Your task to perform on an android device: Show the shopping cart on costco.com. Search for dell alienware on costco.com, select the first entry, and add it to the cart. Image 0: 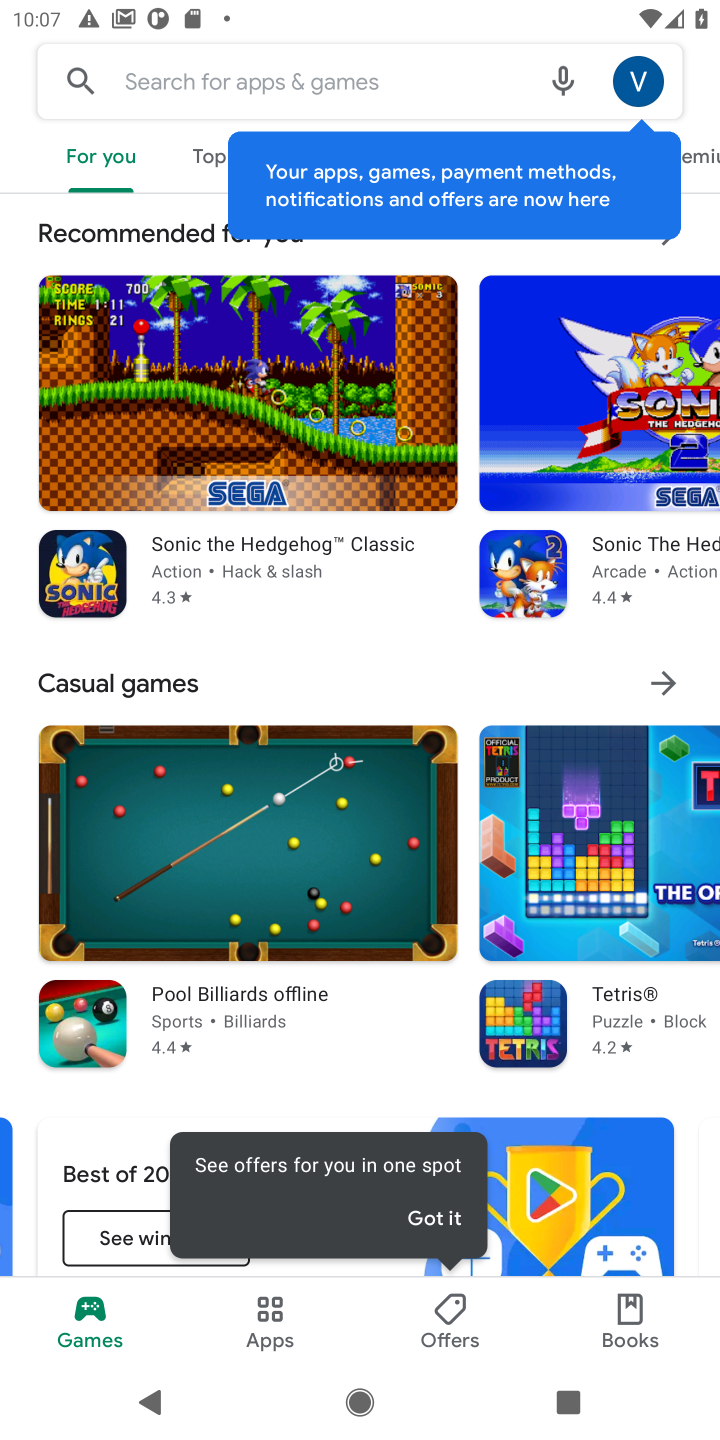
Step 0: press home button
Your task to perform on an android device: Show the shopping cart on costco.com. Search for dell alienware on costco.com, select the first entry, and add it to the cart. Image 1: 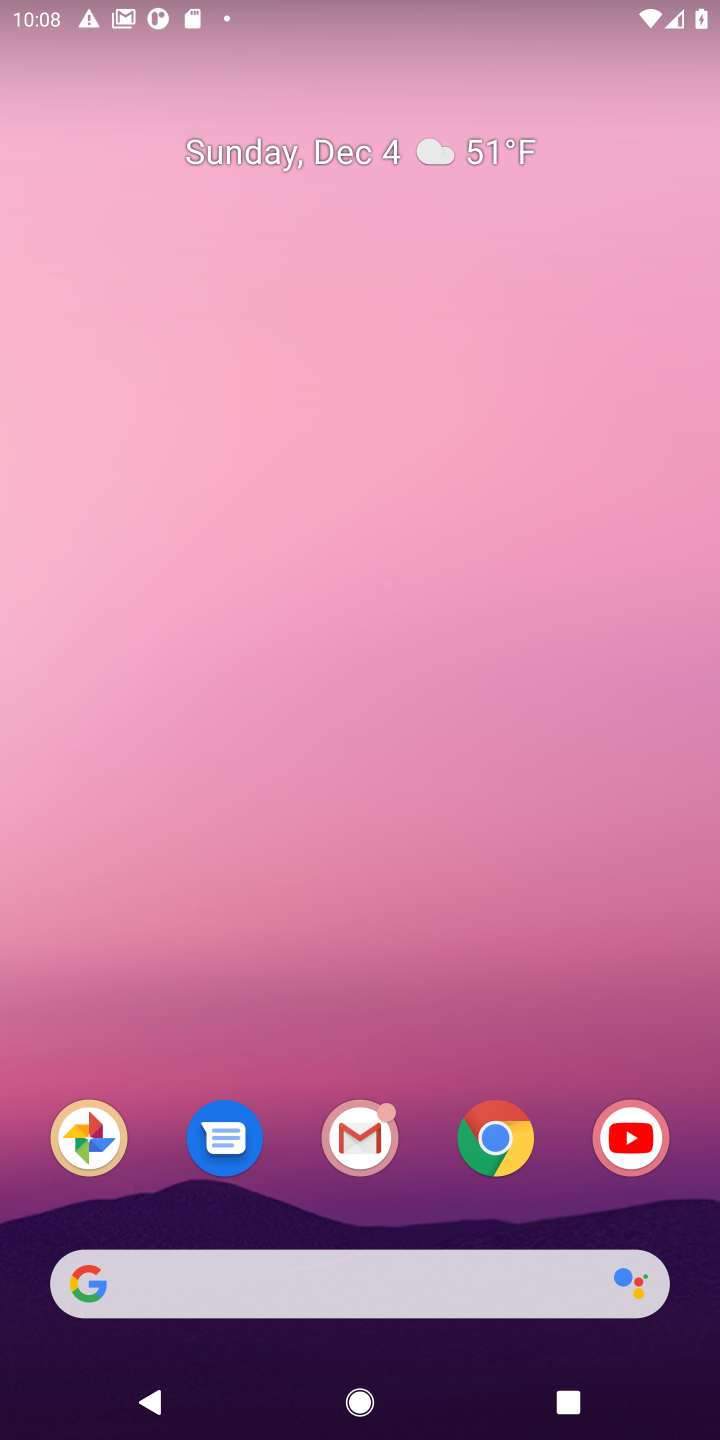
Step 1: click (492, 1135)
Your task to perform on an android device: Show the shopping cart on costco.com. Search for dell alienware on costco.com, select the first entry, and add it to the cart. Image 2: 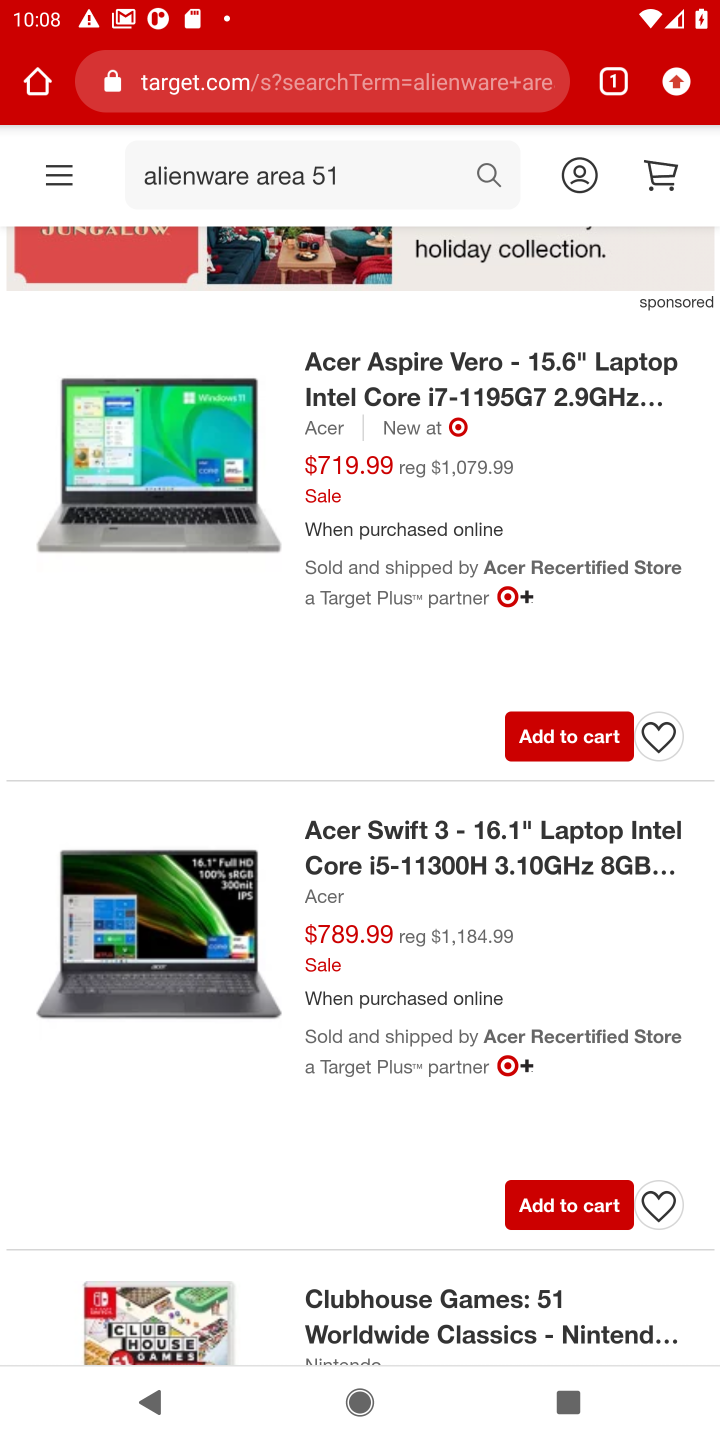
Step 2: click (339, 86)
Your task to perform on an android device: Show the shopping cart on costco.com. Search for dell alienware on costco.com, select the first entry, and add it to the cart. Image 3: 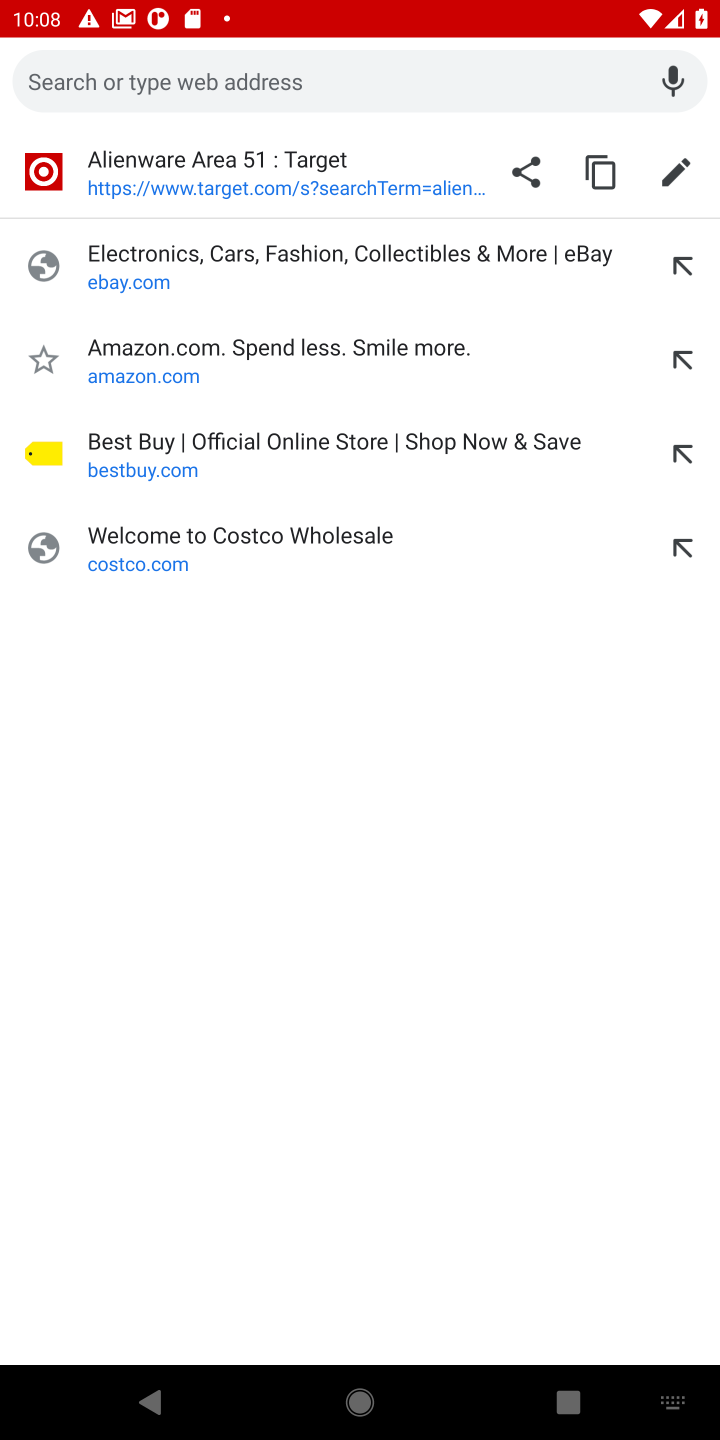
Step 3: click (169, 532)
Your task to perform on an android device: Show the shopping cart on costco.com. Search for dell alienware on costco.com, select the first entry, and add it to the cart. Image 4: 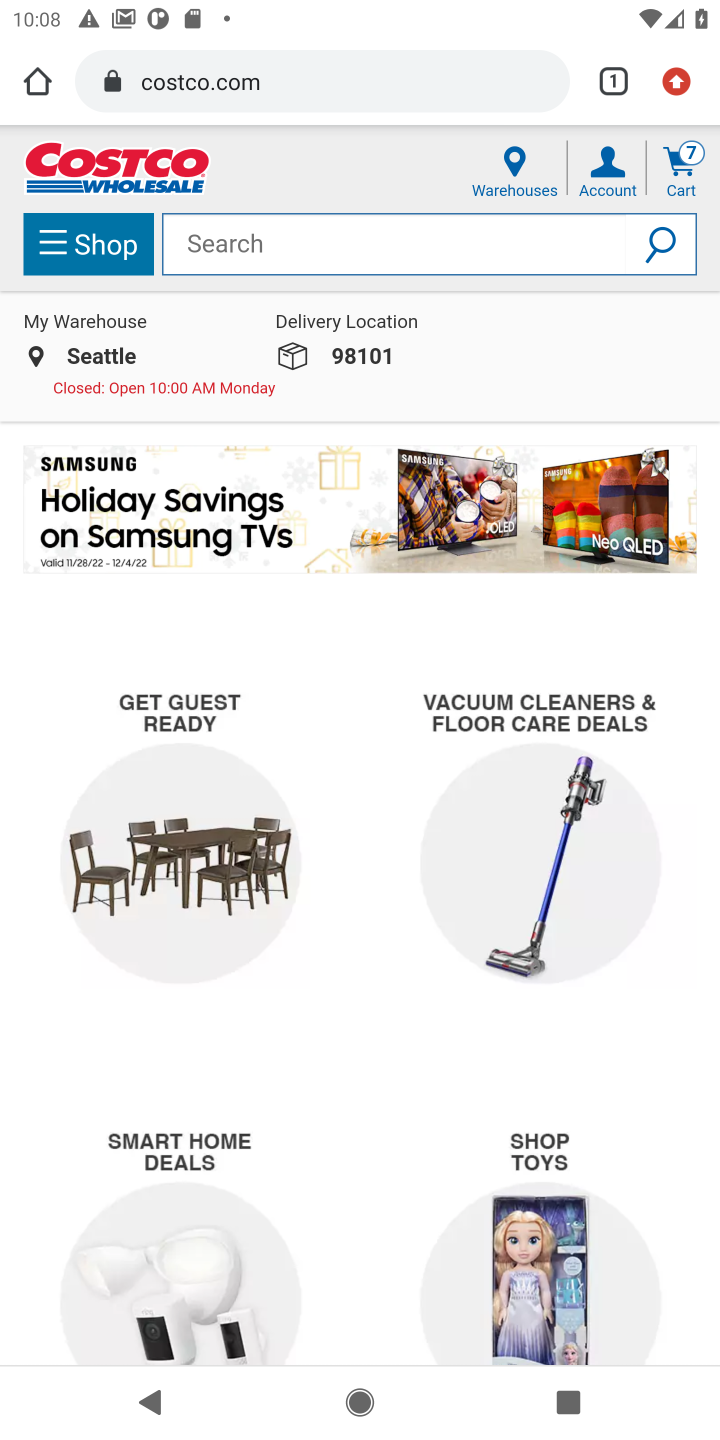
Step 4: click (688, 183)
Your task to perform on an android device: Show the shopping cart on costco.com. Search for dell alienware on costco.com, select the first entry, and add it to the cart. Image 5: 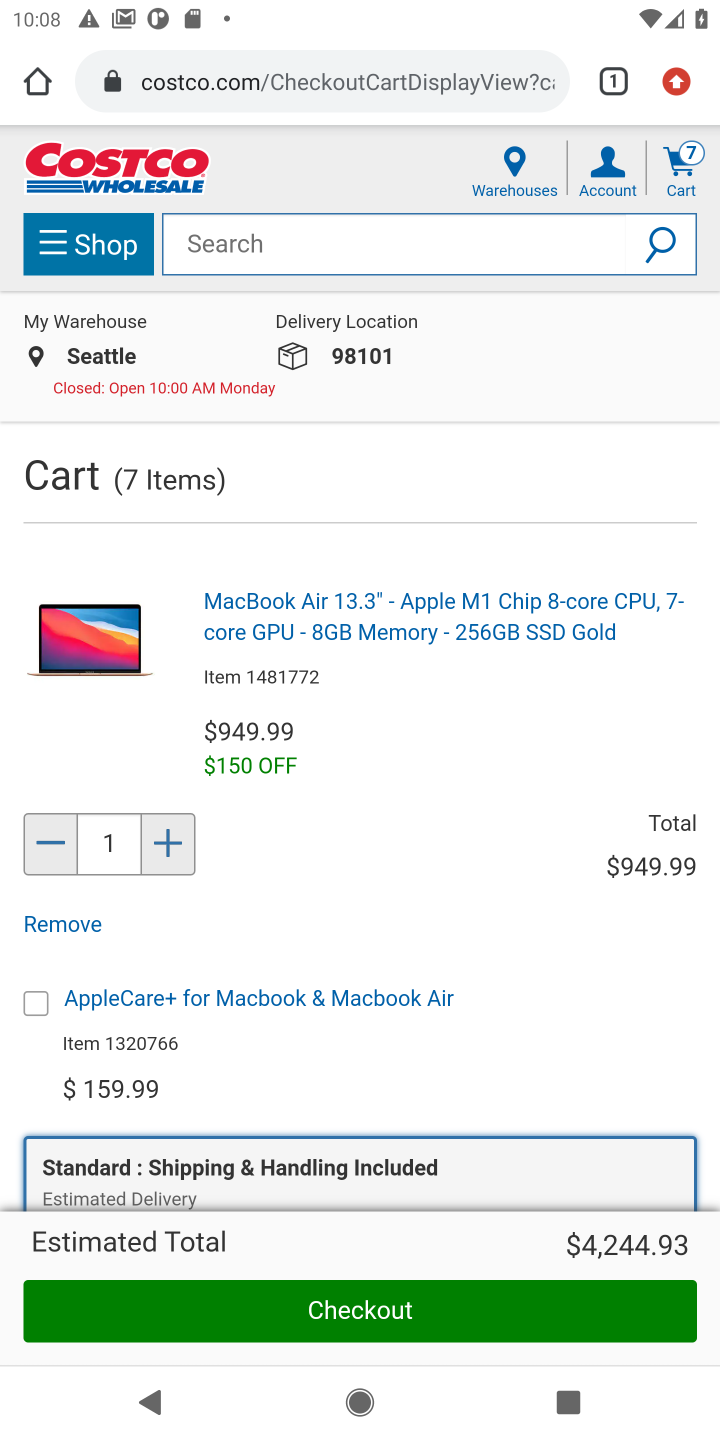
Step 5: click (606, 243)
Your task to perform on an android device: Show the shopping cart on costco.com. Search for dell alienware on costco.com, select the first entry, and add it to the cart. Image 6: 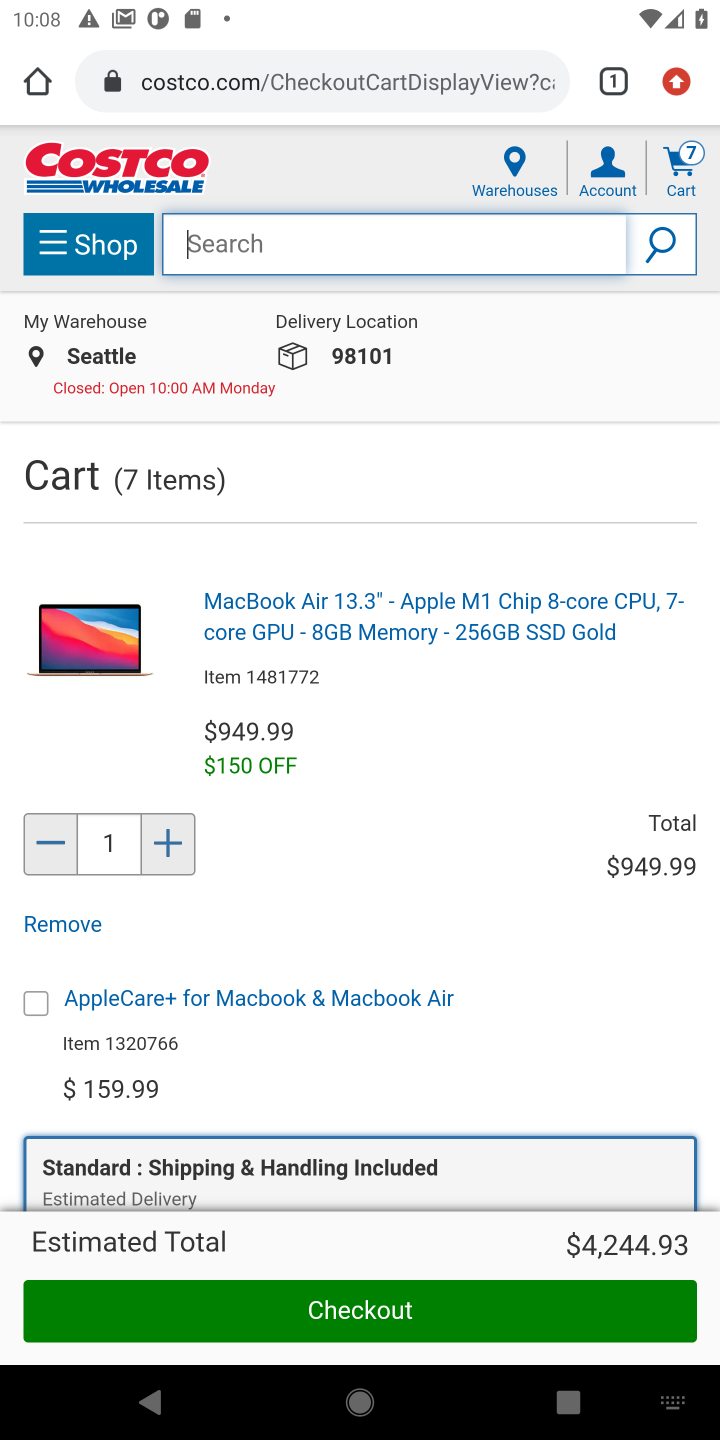
Step 6: press enter
Your task to perform on an android device: Show the shopping cart on costco.com. Search for dell alienware on costco.com, select the first entry, and add it to the cart. Image 7: 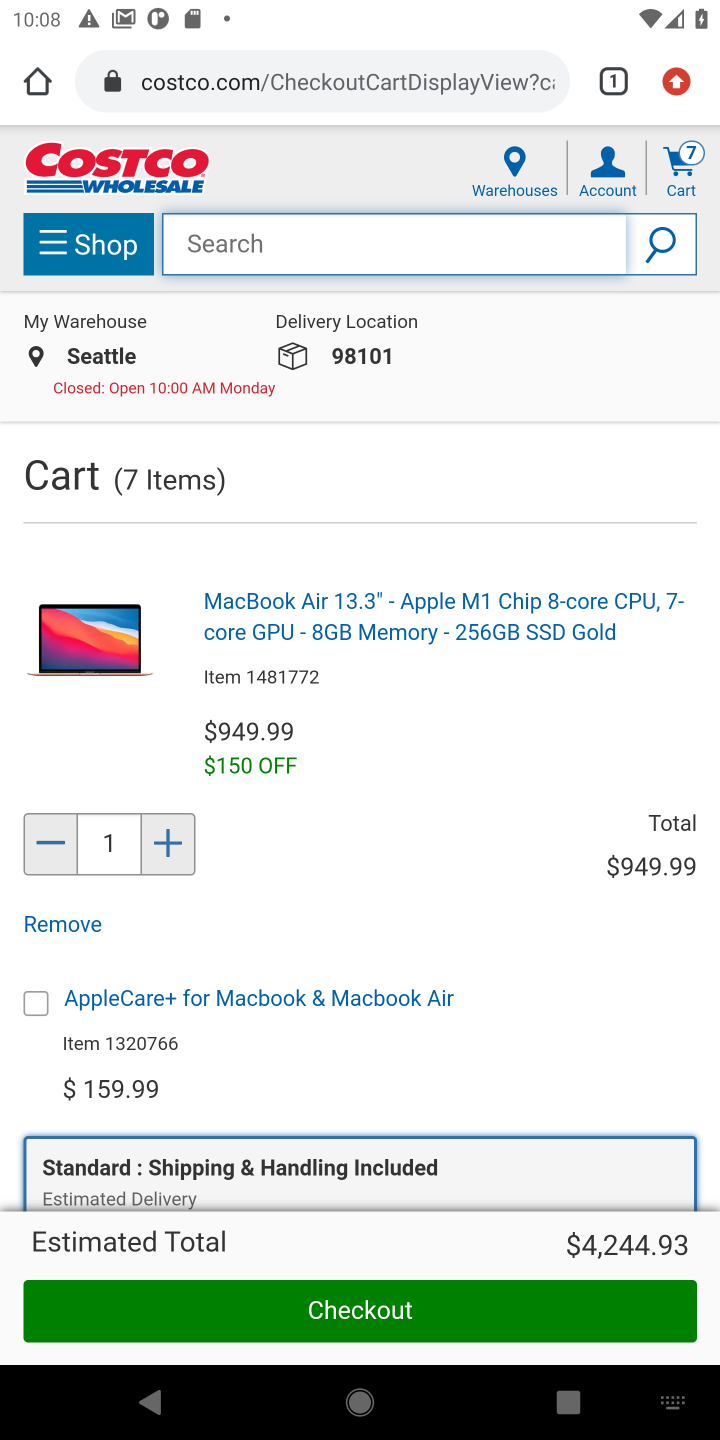
Step 7: type "dell alienware "
Your task to perform on an android device: Show the shopping cart on costco.com. Search for dell alienware on costco.com, select the first entry, and add it to the cart. Image 8: 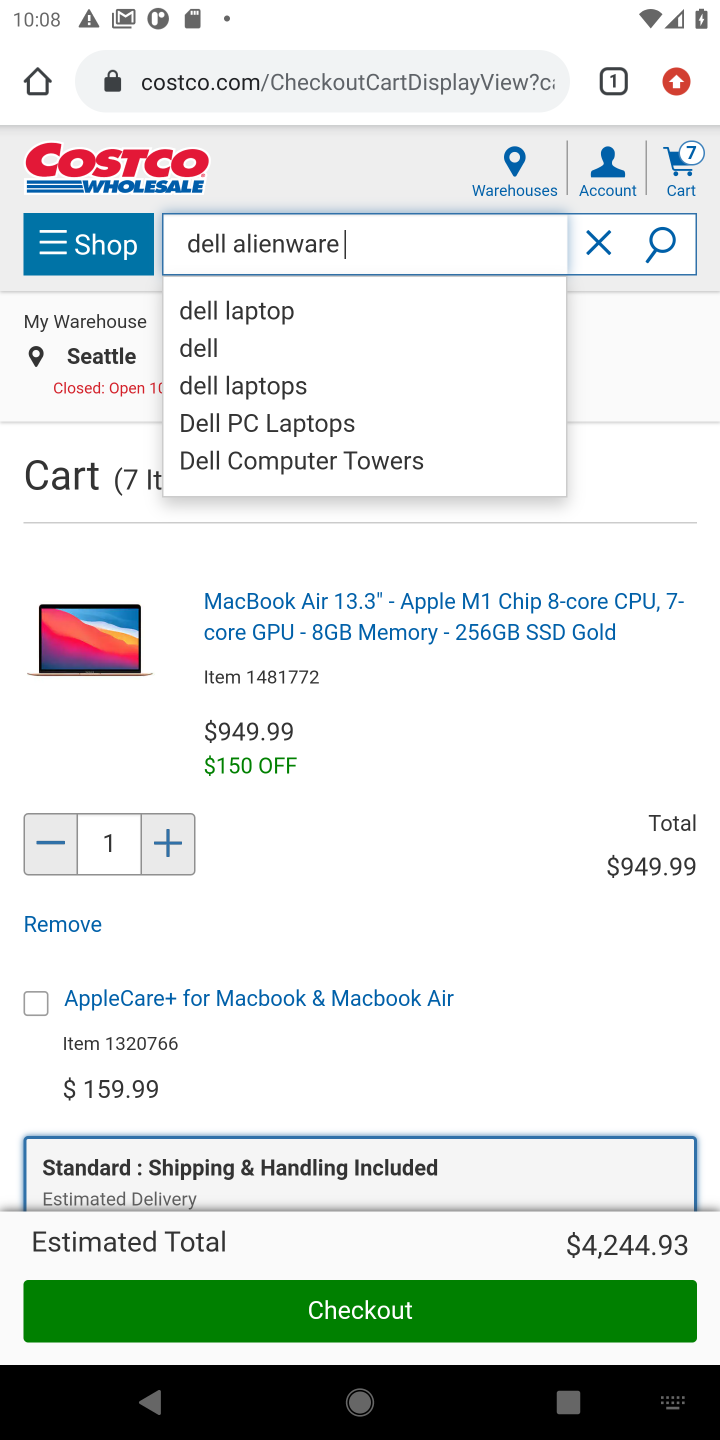
Step 8: click (674, 246)
Your task to perform on an android device: Show the shopping cart on costco.com. Search for dell alienware on costco.com, select the first entry, and add it to the cart. Image 9: 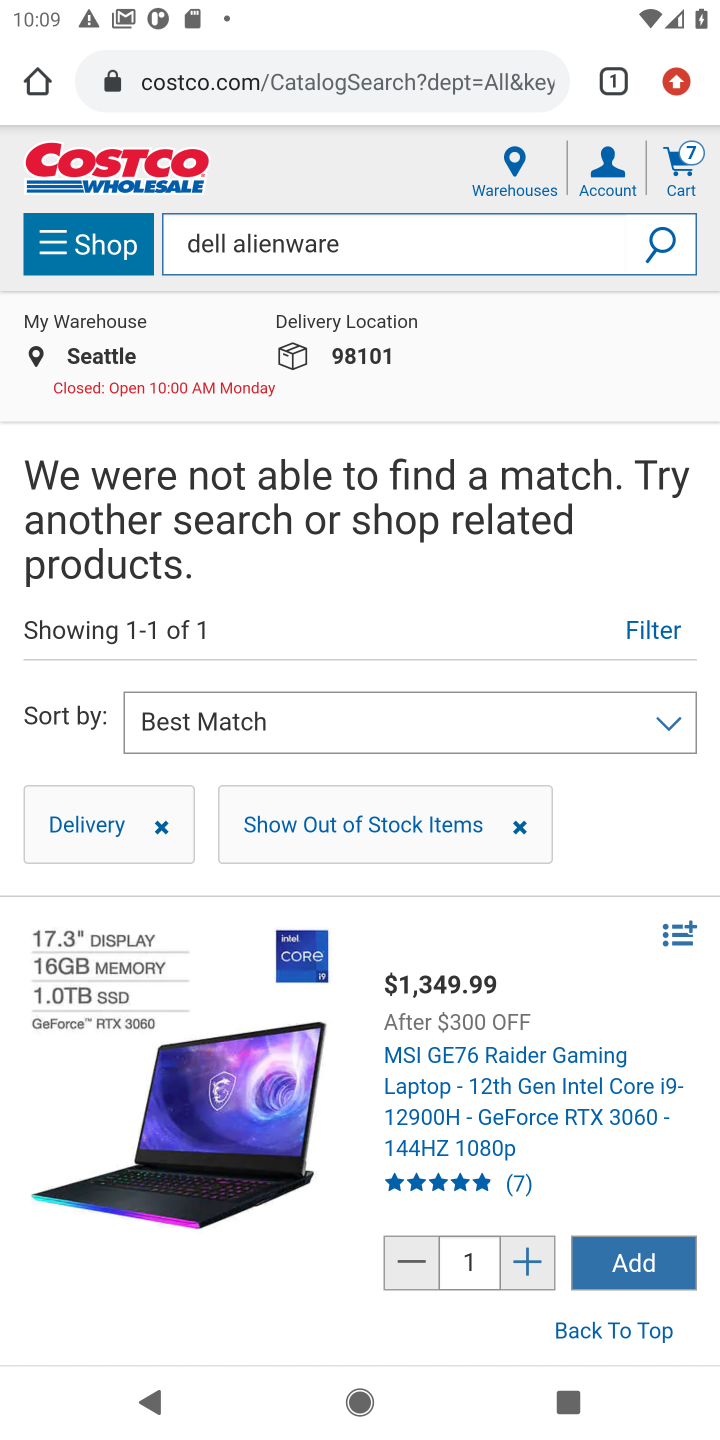
Step 9: task complete